Your task to perform on an android device: Open settings on Google Maps Image 0: 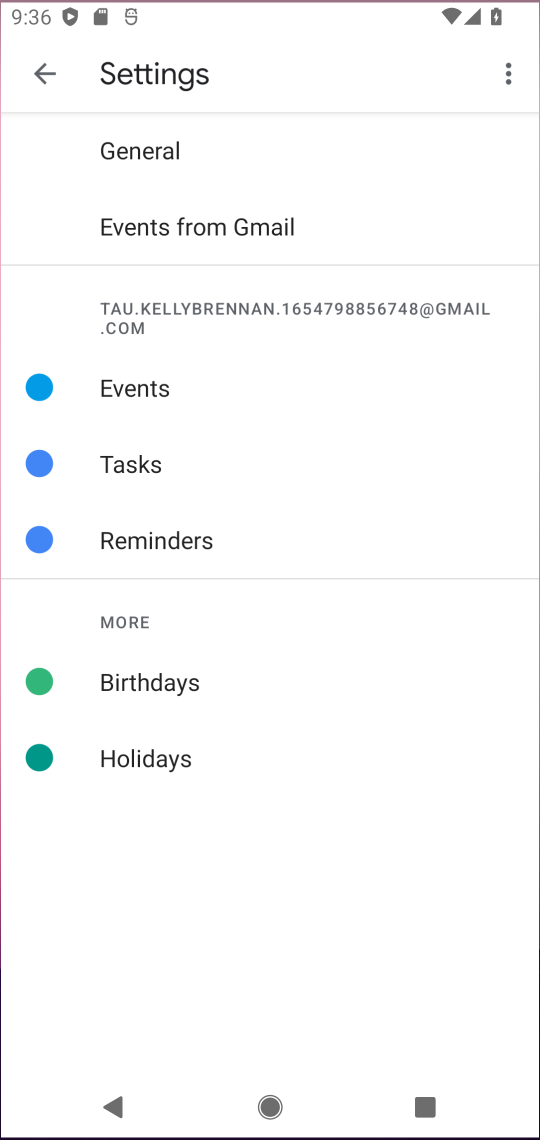
Step 0: press home button
Your task to perform on an android device: Open settings on Google Maps Image 1: 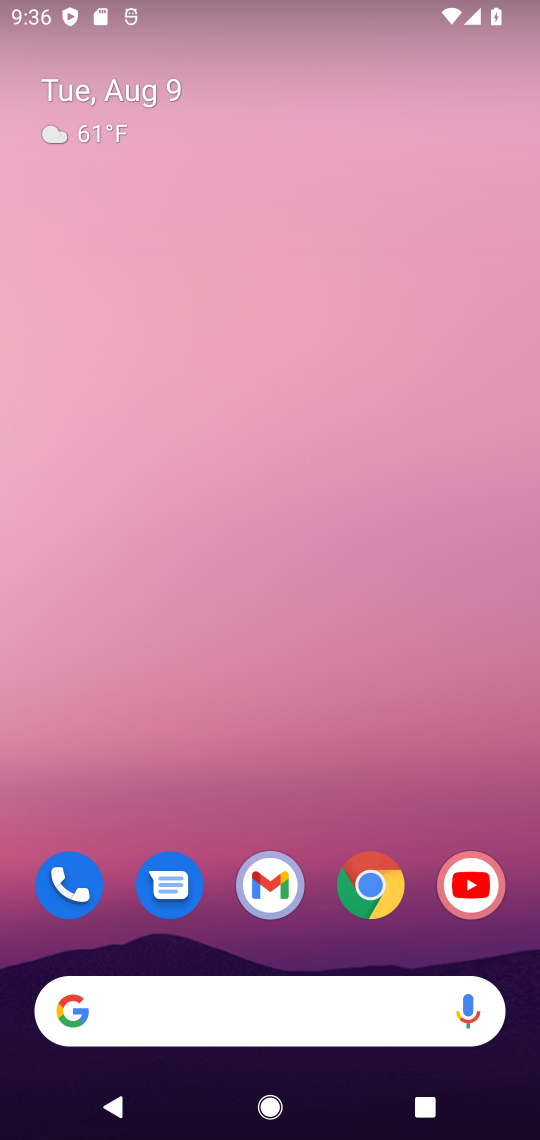
Step 1: drag from (317, 947) to (354, 259)
Your task to perform on an android device: Open settings on Google Maps Image 2: 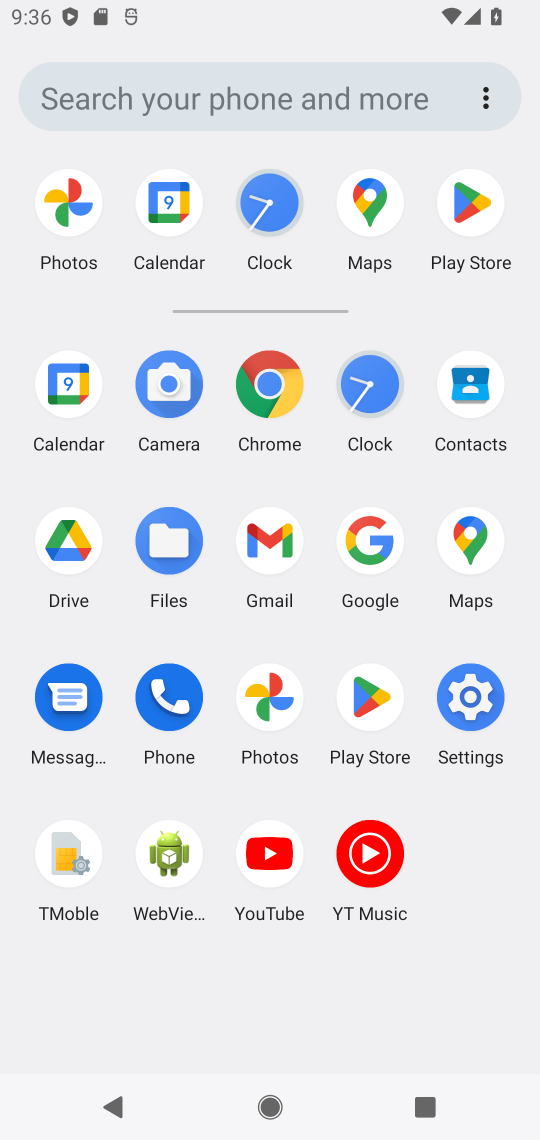
Step 2: click (466, 536)
Your task to perform on an android device: Open settings on Google Maps Image 3: 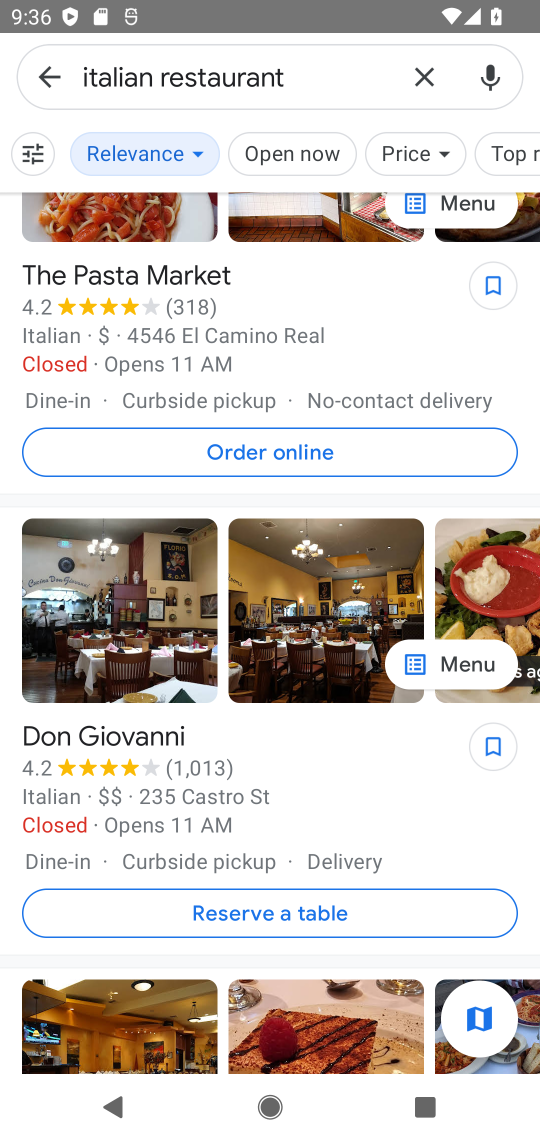
Step 3: click (44, 70)
Your task to perform on an android device: Open settings on Google Maps Image 4: 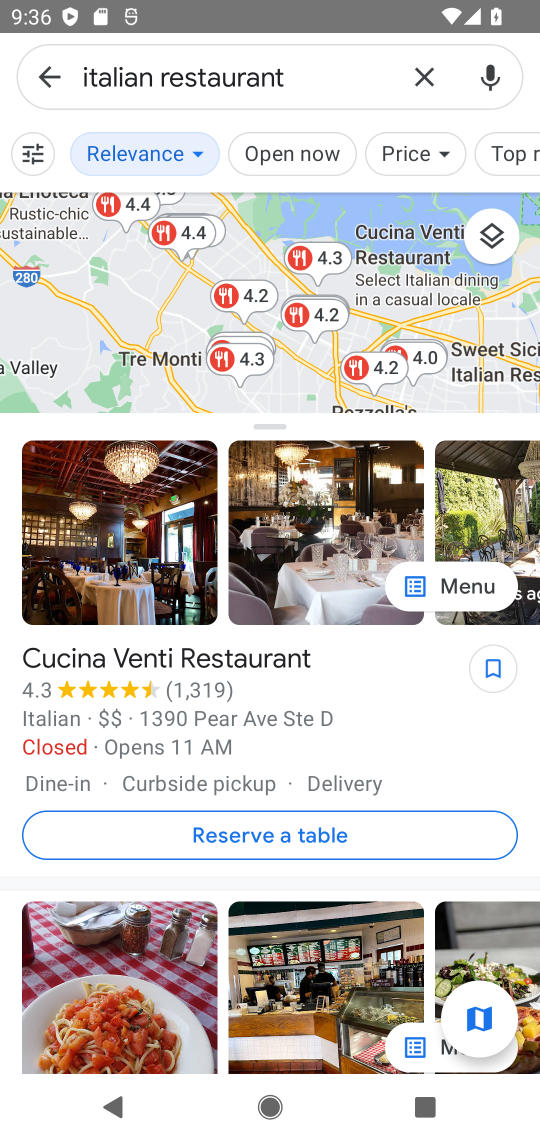
Step 4: click (55, 75)
Your task to perform on an android device: Open settings on Google Maps Image 5: 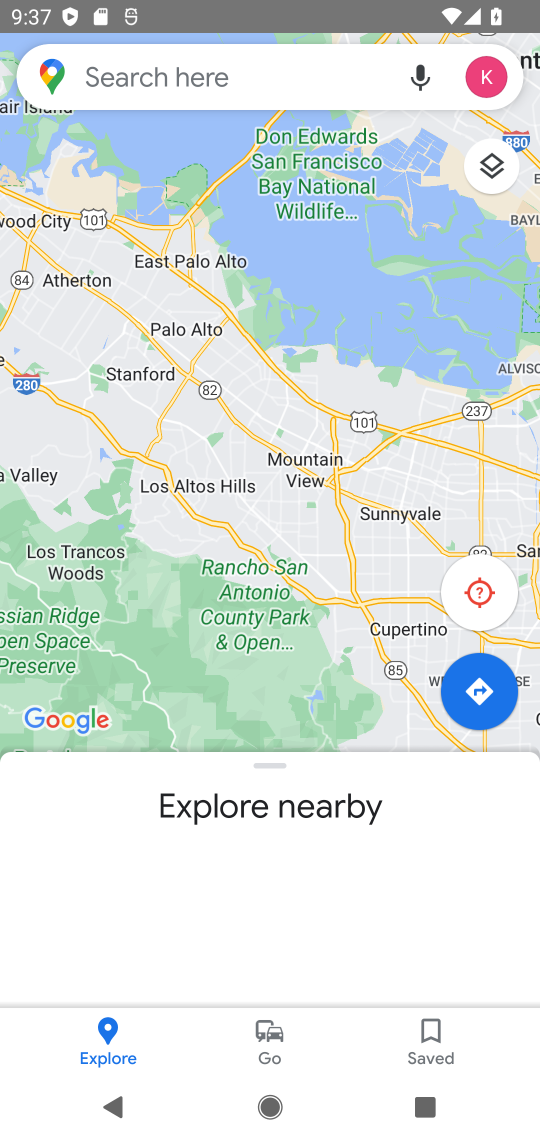
Step 5: click (490, 73)
Your task to perform on an android device: Open settings on Google Maps Image 6: 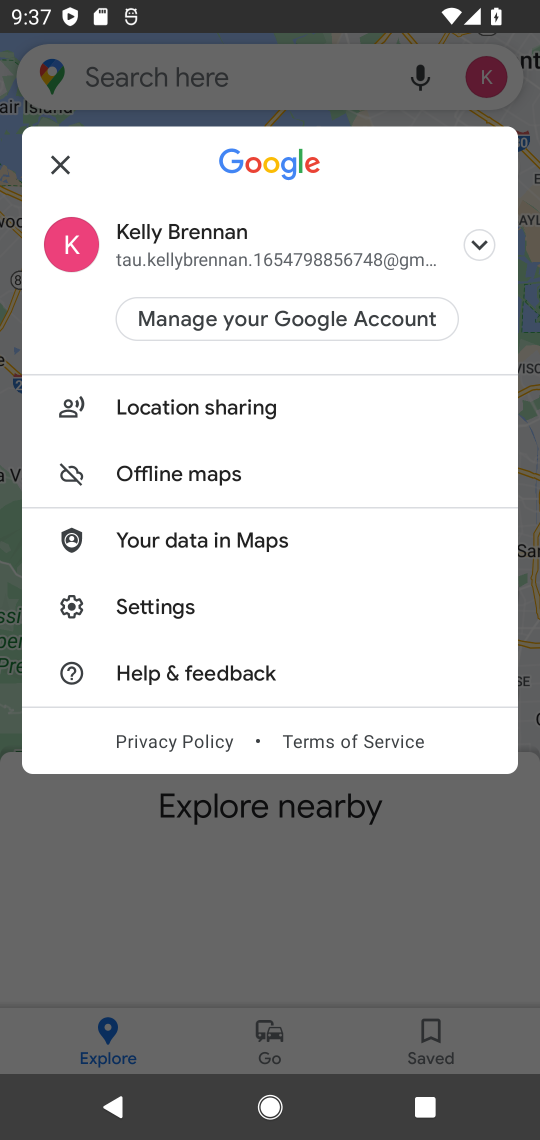
Step 6: click (202, 611)
Your task to perform on an android device: Open settings on Google Maps Image 7: 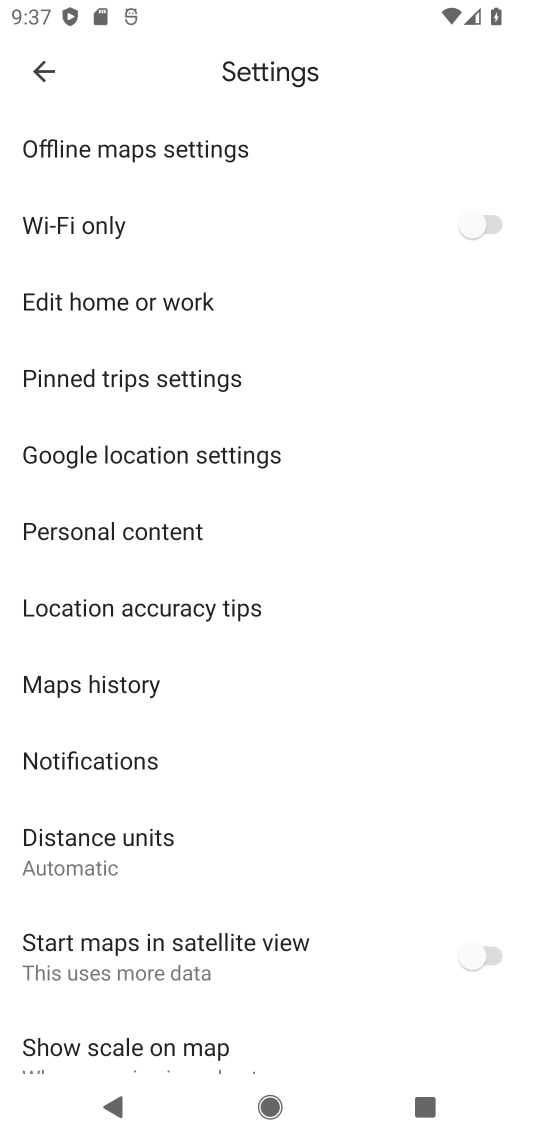
Step 7: task complete